Your task to perform on an android device: What's the weather going to be tomorrow? Image 0: 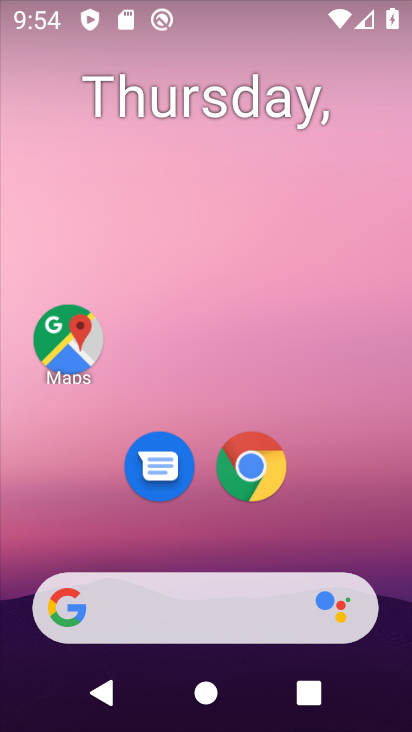
Step 0: drag from (256, 546) to (354, 117)
Your task to perform on an android device: What's the weather going to be tomorrow? Image 1: 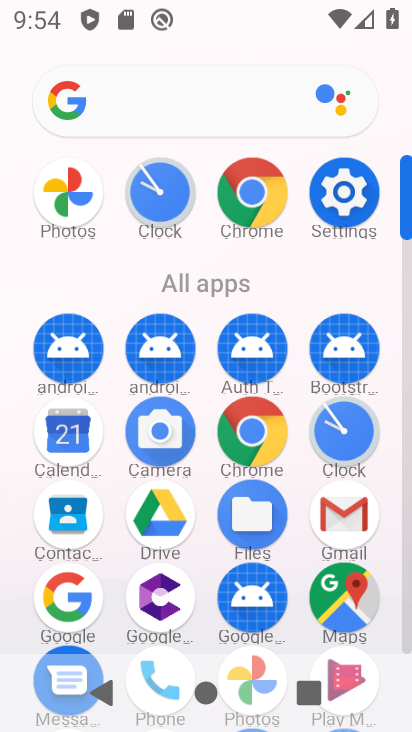
Step 1: click (57, 586)
Your task to perform on an android device: What's the weather going to be tomorrow? Image 2: 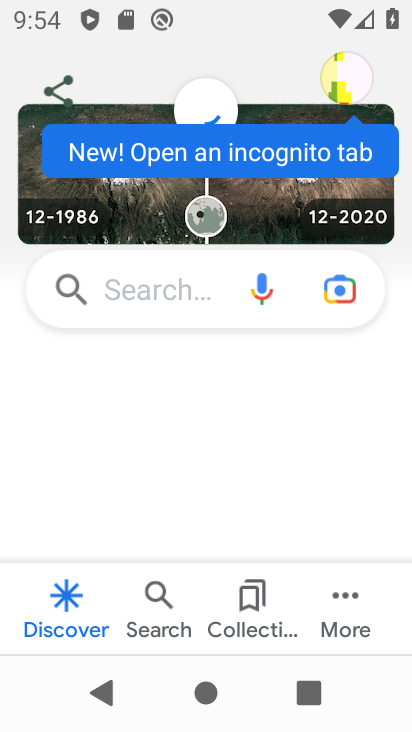
Step 2: click (214, 301)
Your task to perform on an android device: What's the weather going to be tomorrow? Image 3: 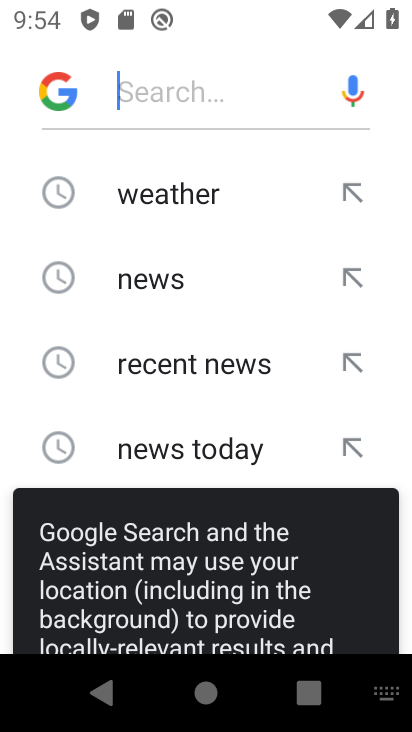
Step 3: click (123, 186)
Your task to perform on an android device: What's the weather going to be tomorrow? Image 4: 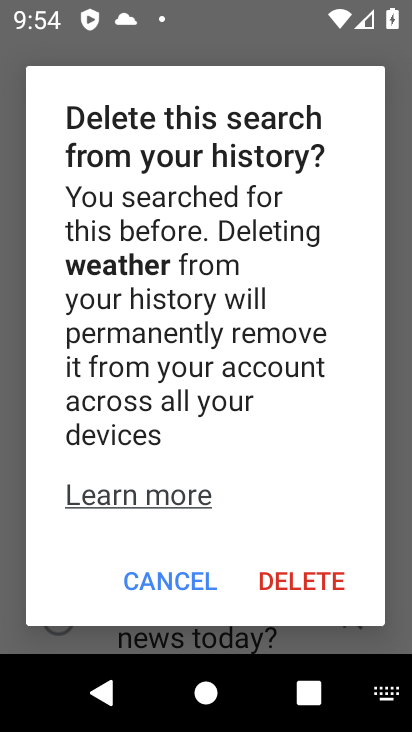
Step 4: click (213, 580)
Your task to perform on an android device: What's the weather going to be tomorrow? Image 5: 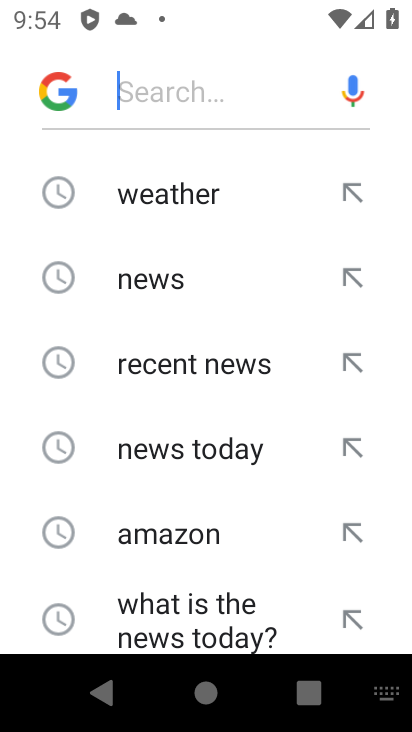
Step 5: click (163, 182)
Your task to perform on an android device: What's the weather going to be tomorrow? Image 6: 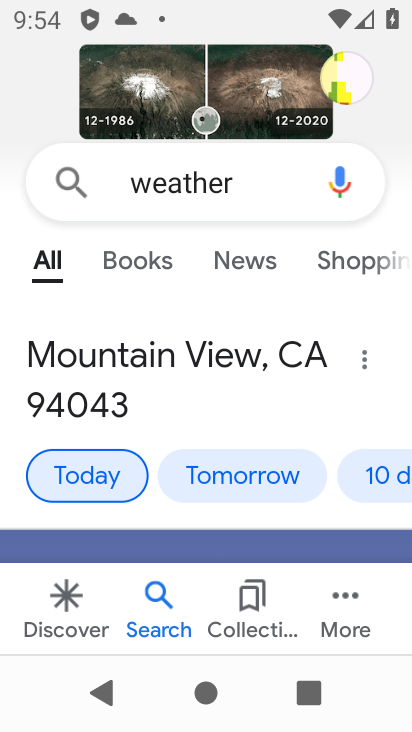
Step 6: task complete